Your task to perform on an android device: Search for seafood restaurants on Google Maps Image 0: 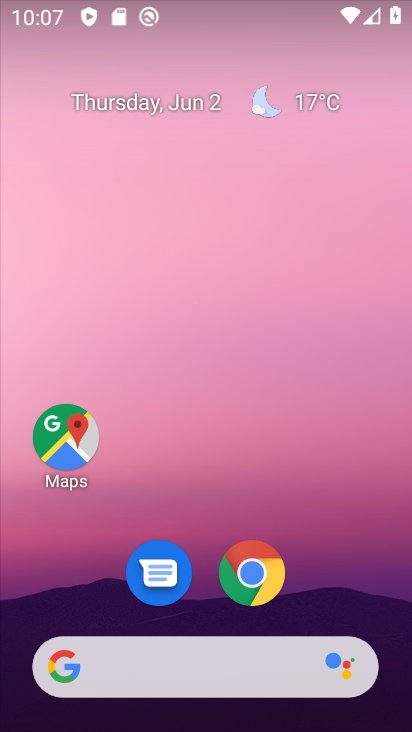
Step 0: task complete